Your task to perform on an android device: open a new tab in the chrome app Image 0: 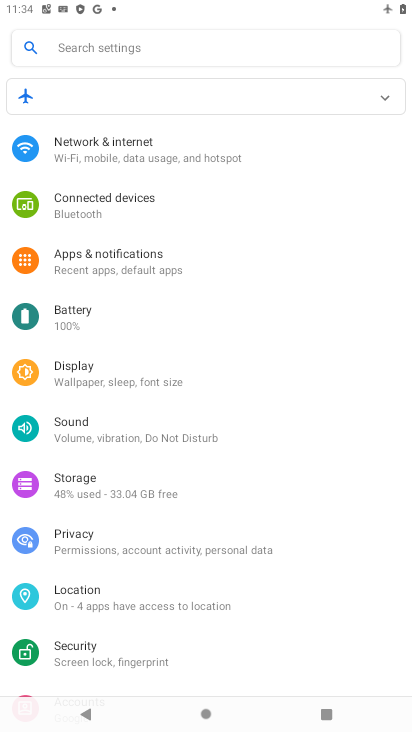
Step 0: press home button
Your task to perform on an android device: open a new tab in the chrome app Image 1: 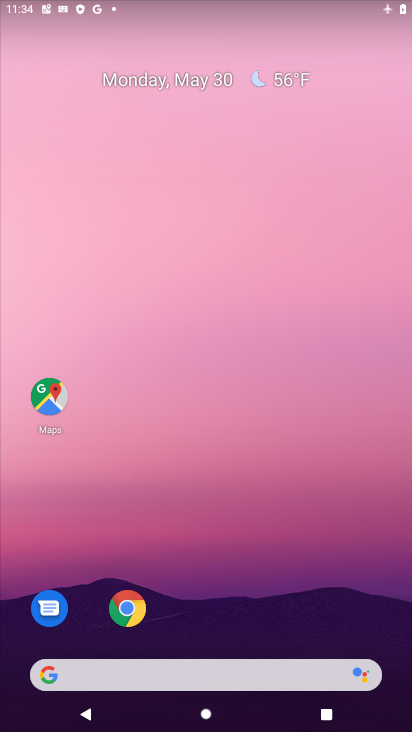
Step 1: click (132, 605)
Your task to perform on an android device: open a new tab in the chrome app Image 2: 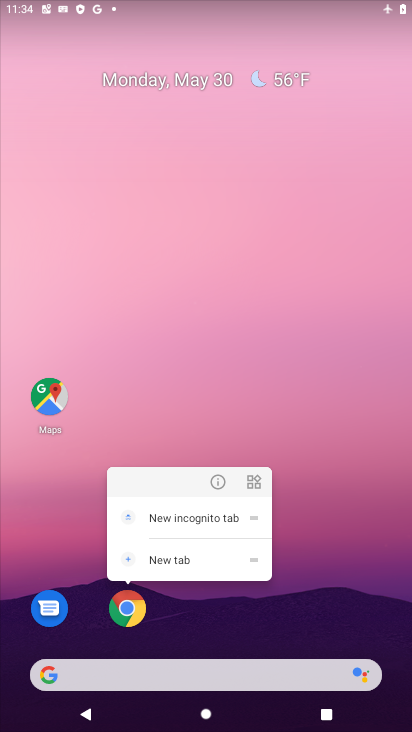
Step 2: click (131, 618)
Your task to perform on an android device: open a new tab in the chrome app Image 3: 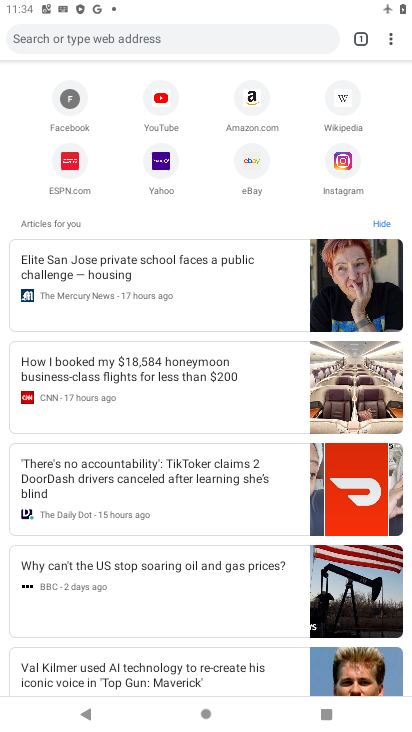
Step 3: click (365, 37)
Your task to perform on an android device: open a new tab in the chrome app Image 4: 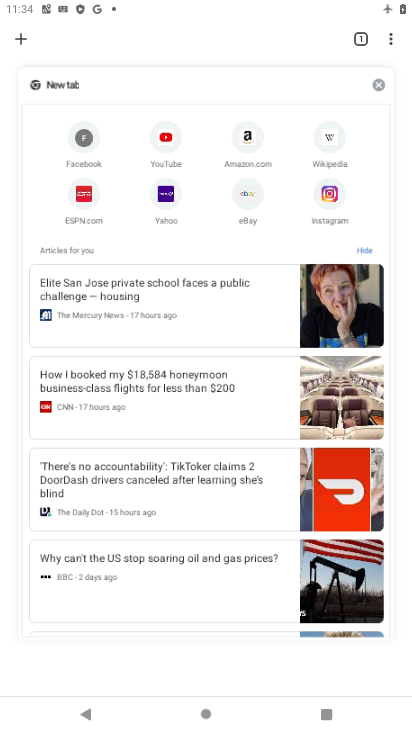
Step 4: click (20, 41)
Your task to perform on an android device: open a new tab in the chrome app Image 5: 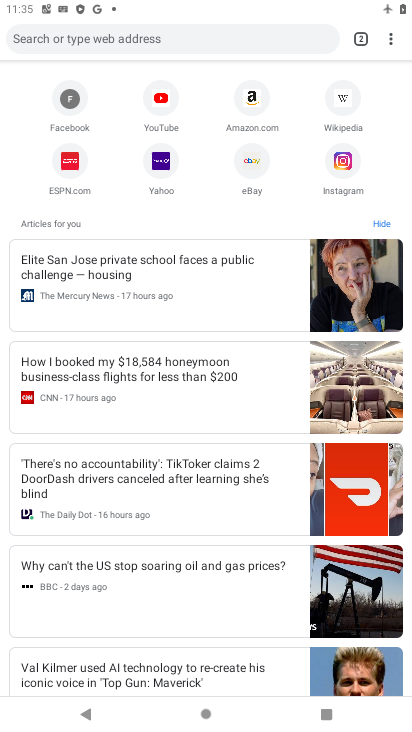
Step 5: task complete